Your task to perform on an android device: Go to Google Image 0: 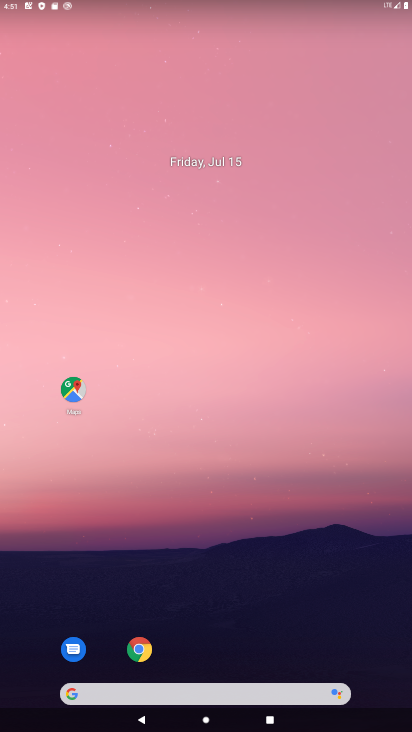
Step 0: drag from (335, 555) to (300, 86)
Your task to perform on an android device: Go to Google Image 1: 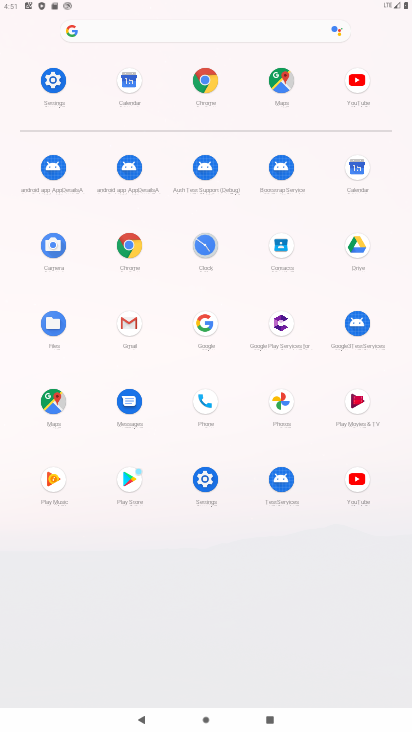
Step 1: click (212, 322)
Your task to perform on an android device: Go to Google Image 2: 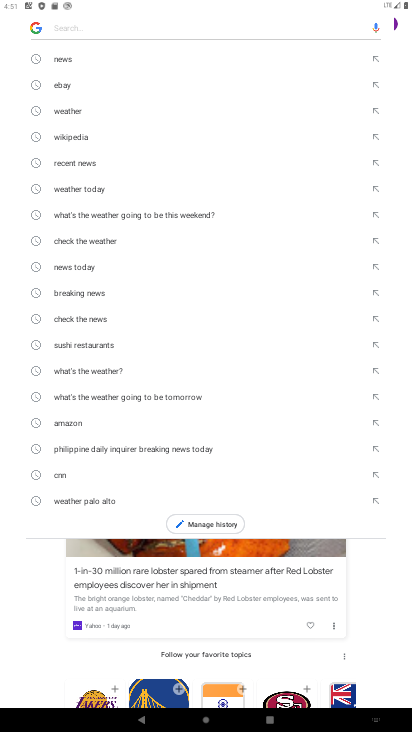
Step 2: task complete